Your task to perform on an android device: Go to Yahoo.com Image 0: 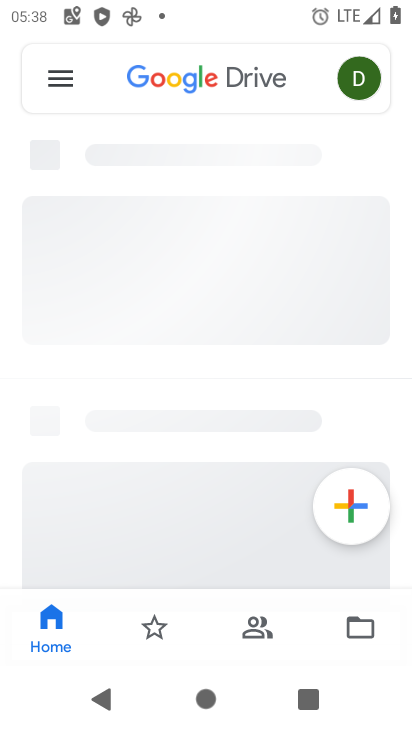
Step 0: press home button
Your task to perform on an android device: Go to Yahoo.com Image 1: 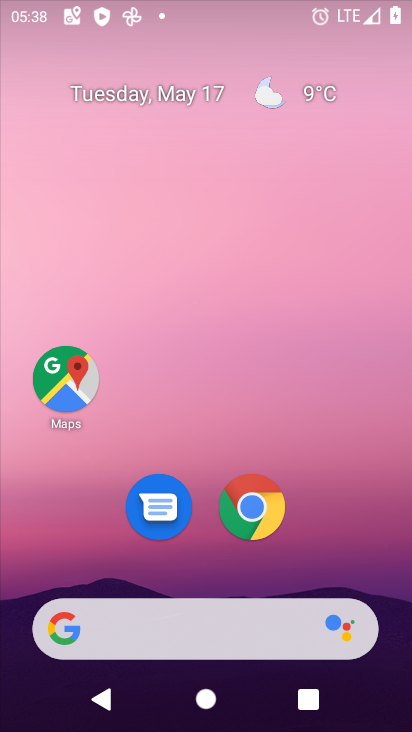
Step 1: click (260, 495)
Your task to perform on an android device: Go to Yahoo.com Image 2: 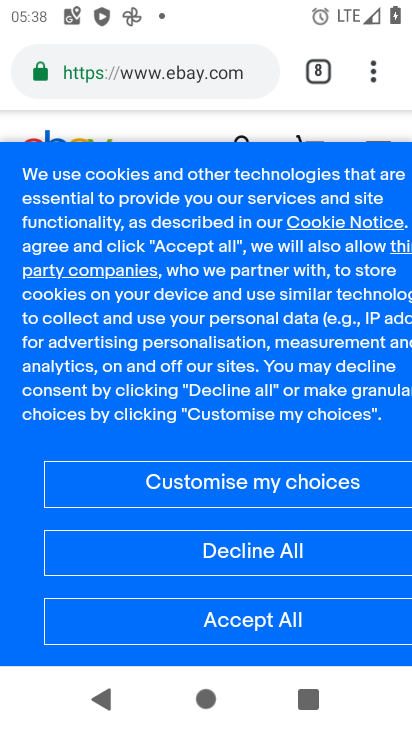
Step 2: click (326, 68)
Your task to perform on an android device: Go to Yahoo.com Image 3: 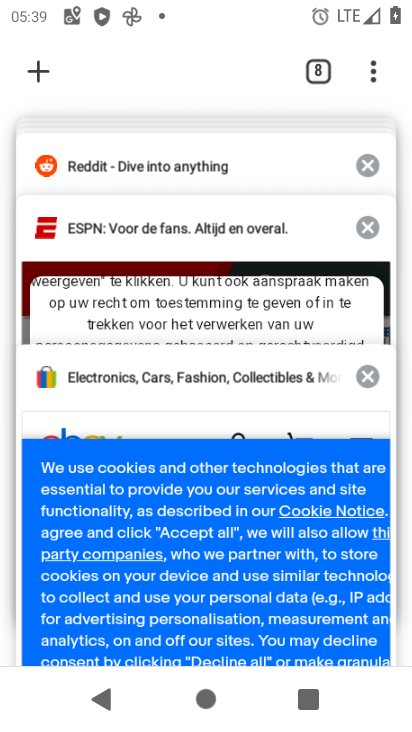
Step 3: drag from (193, 178) to (162, 560)
Your task to perform on an android device: Go to Yahoo.com Image 4: 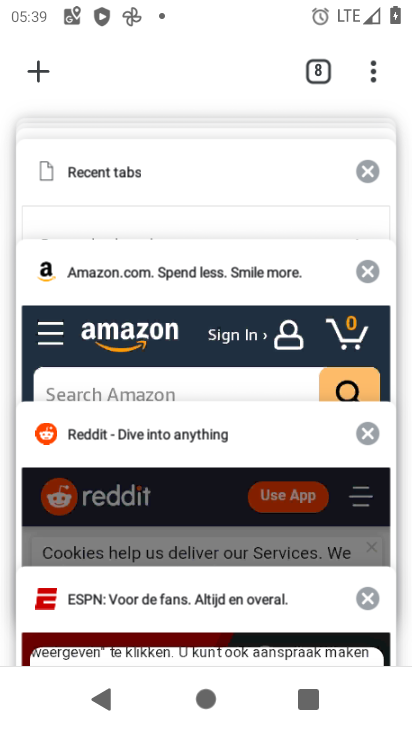
Step 4: drag from (147, 199) to (126, 621)
Your task to perform on an android device: Go to Yahoo.com Image 5: 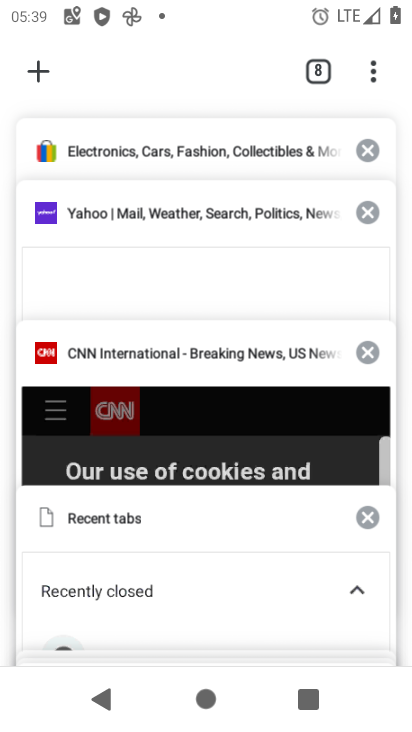
Step 5: click (152, 209)
Your task to perform on an android device: Go to Yahoo.com Image 6: 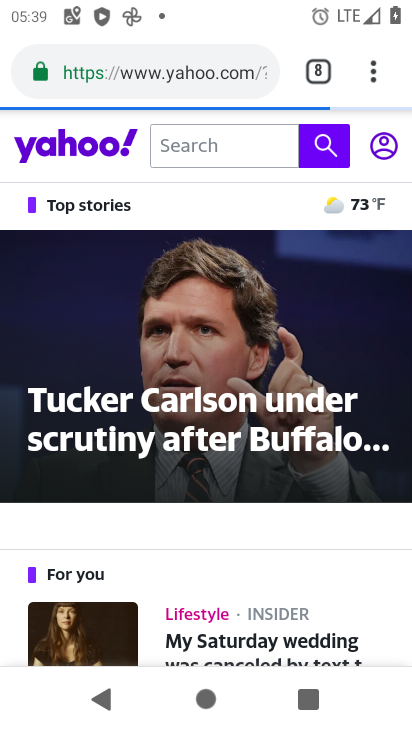
Step 6: task complete